Your task to perform on an android device: delete location history Image 0: 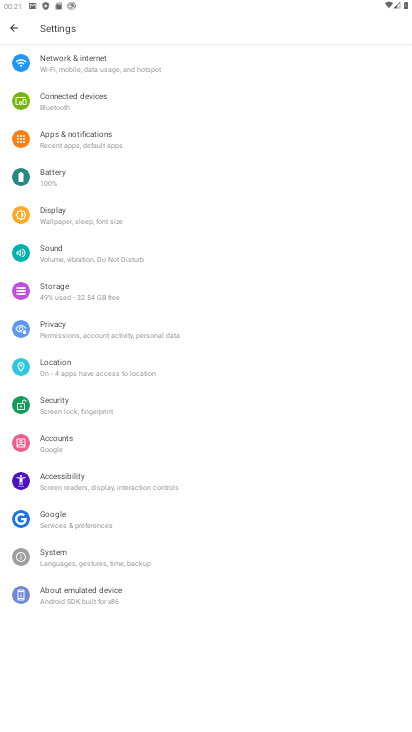
Step 0: press home button
Your task to perform on an android device: delete location history Image 1: 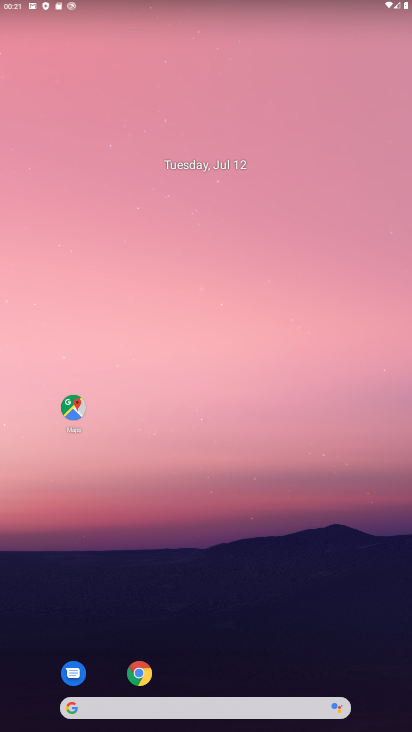
Step 1: drag from (247, 589) to (179, 19)
Your task to perform on an android device: delete location history Image 2: 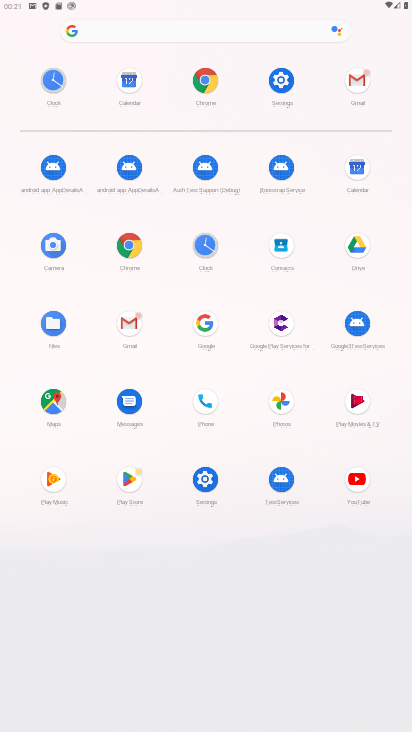
Step 2: click (279, 79)
Your task to perform on an android device: delete location history Image 3: 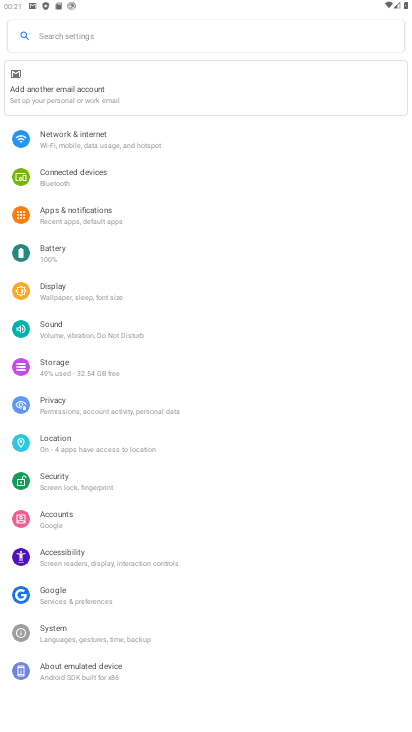
Step 3: click (60, 445)
Your task to perform on an android device: delete location history Image 4: 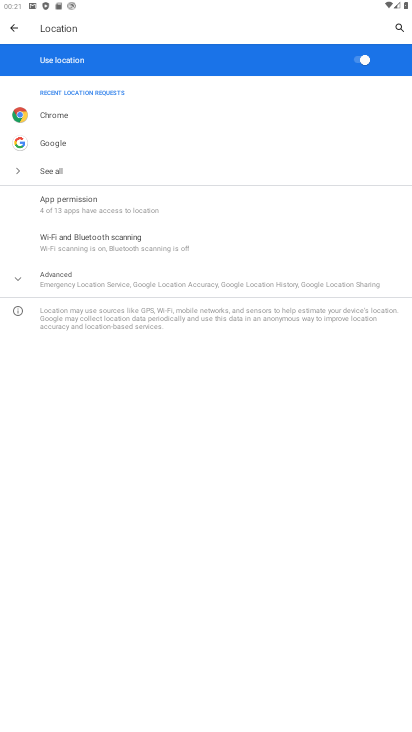
Step 4: click (14, 278)
Your task to perform on an android device: delete location history Image 5: 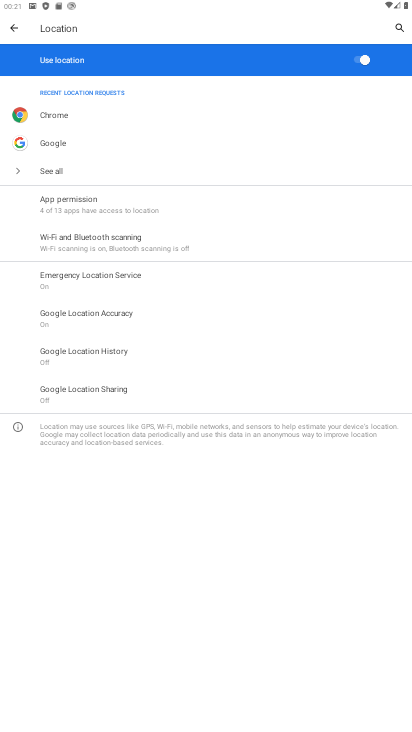
Step 5: click (96, 351)
Your task to perform on an android device: delete location history Image 6: 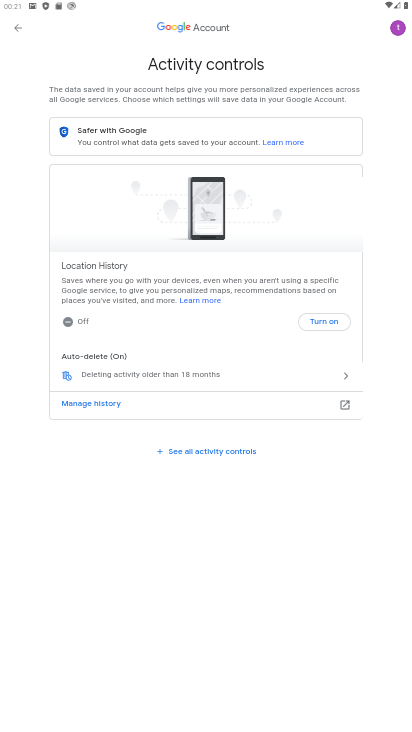
Step 6: click (121, 374)
Your task to perform on an android device: delete location history Image 7: 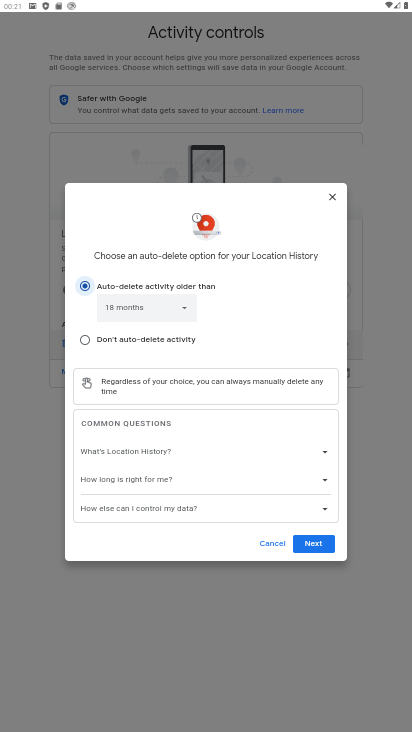
Step 7: click (307, 541)
Your task to perform on an android device: delete location history Image 8: 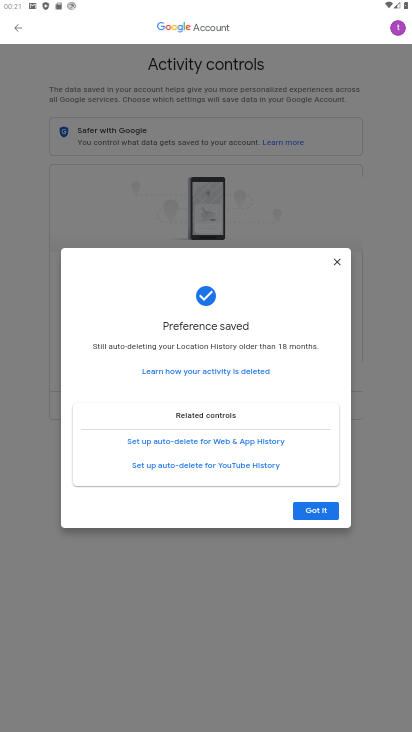
Step 8: click (314, 507)
Your task to perform on an android device: delete location history Image 9: 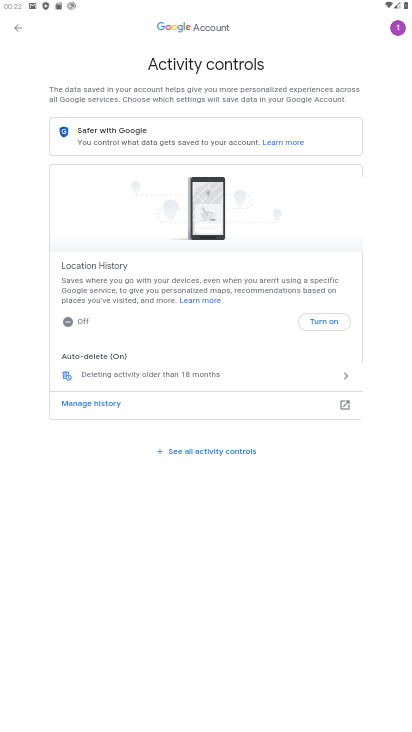
Step 9: task complete